Your task to perform on an android device: turn on data saver in the chrome app Image 0: 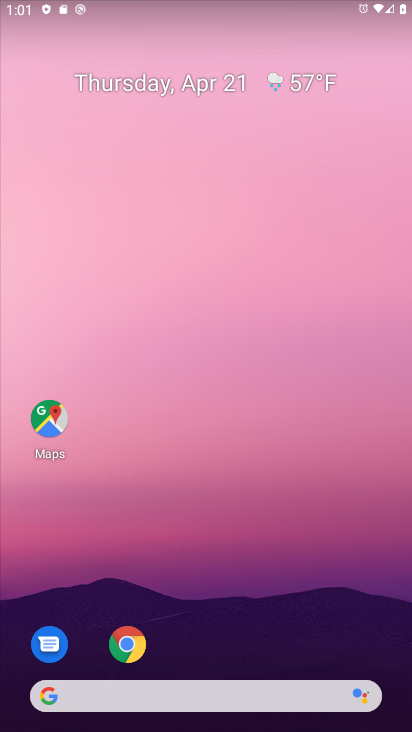
Step 0: drag from (214, 678) to (215, 28)
Your task to perform on an android device: turn on data saver in the chrome app Image 1: 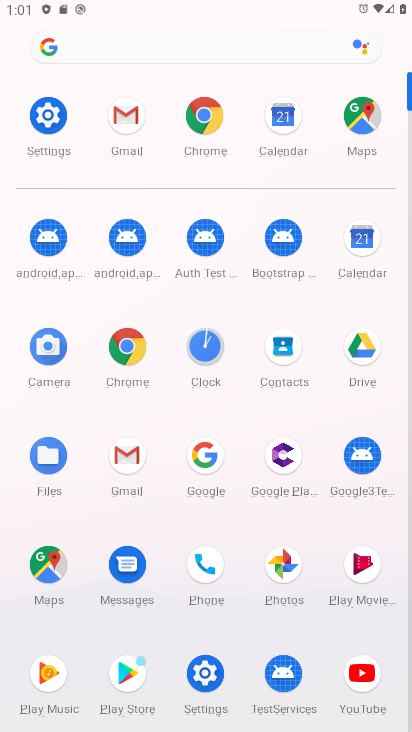
Step 1: click (120, 346)
Your task to perform on an android device: turn on data saver in the chrome app Image 2: 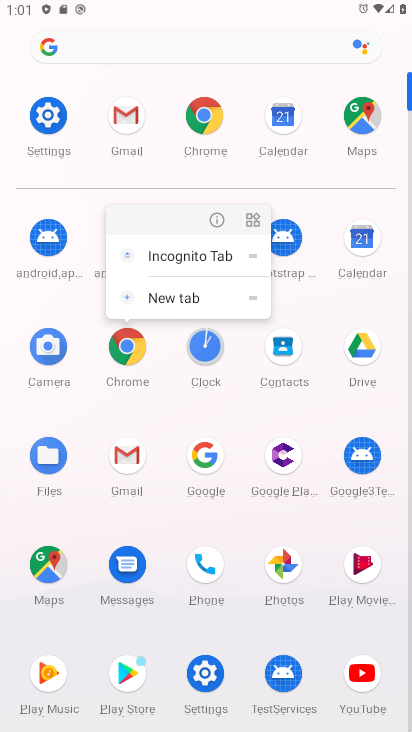
Step 2: click (118, 346)
Your task to perform on an android device: turn on data saver in the chrome app Image 3: 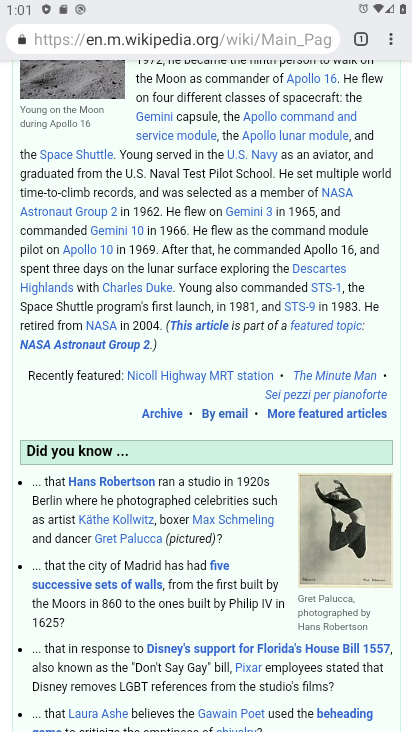
Step 3: drag from (388, 40) to (269, 521)
Your task to perform on an android device: turn on data saver in the chrome app Image 4: 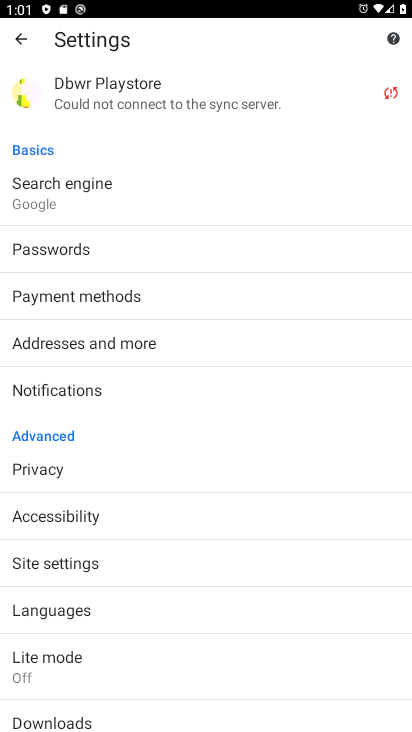
Step 4: click (104, 681)
Your task to perform on an android device: turn on data saver in the chrome app Image 5: 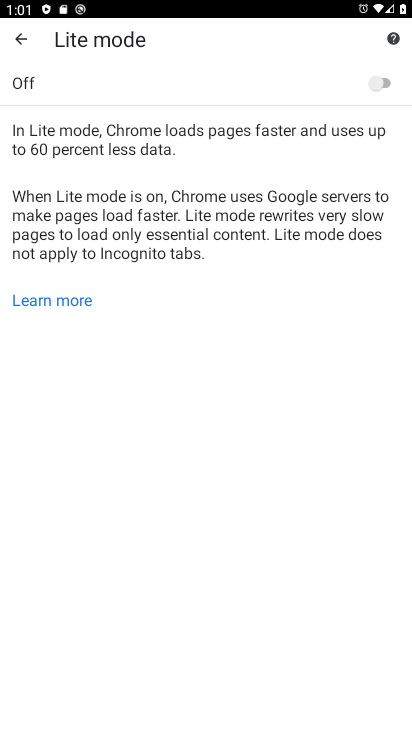
Step 5: click (375, 78)
Your task to perform on an android device: turn on data saver in the chrome app Image 6: 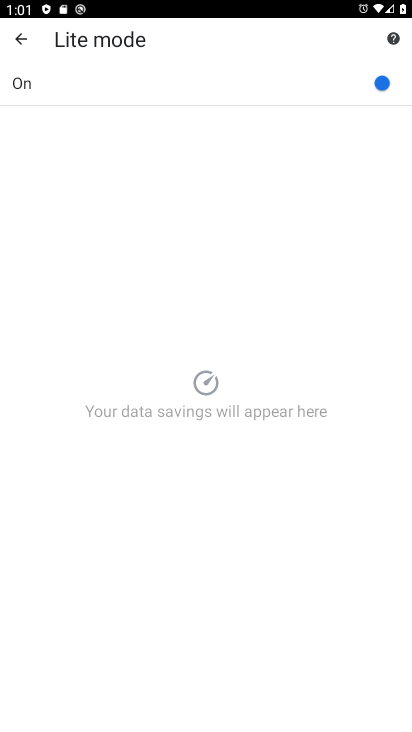
Step 6: task complete